Your task to perform on an android device: turn off picture-in-picture Image 0: 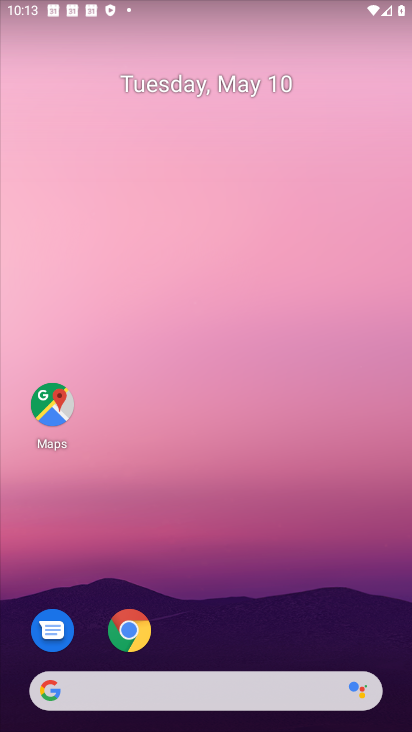
Step 0: click (123, 635)
Your task to perform on an android device: turn off picture-in-picture Image 1: 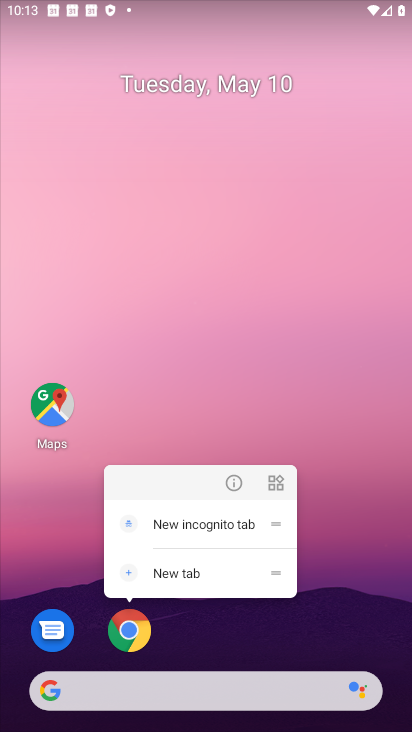
Step 1: click (231, 486)
Your task to perform on an android device: turn off picture-in-picture Image 2: 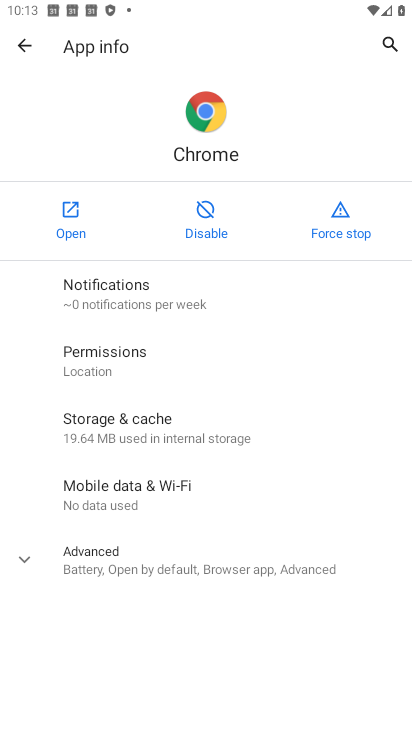
Step 2: click (277, 550)
Your task to perform on an android device: turn off picture-in-picture Image 3: 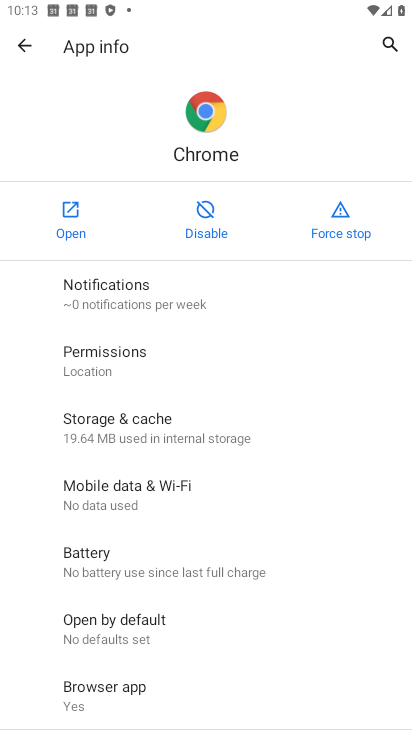
Step 3: drag from (253, 670) to (213, 97)
Your task to perform on an android device: turn off picture-in-picture Image 4: 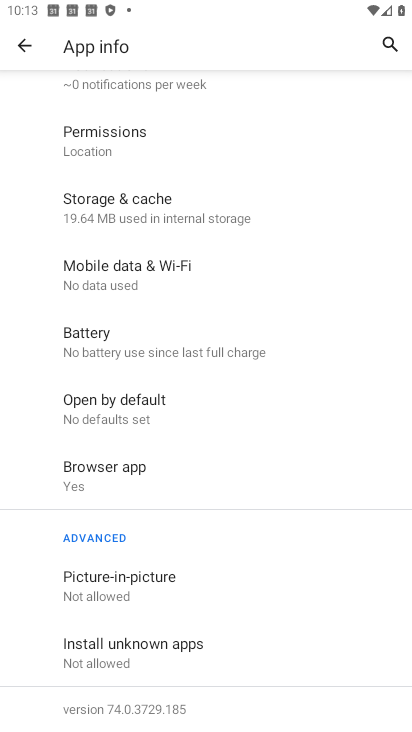
Step 4: click (104, 578)
Your task to perform on an android device: turn off picture-in-picture Image 5: 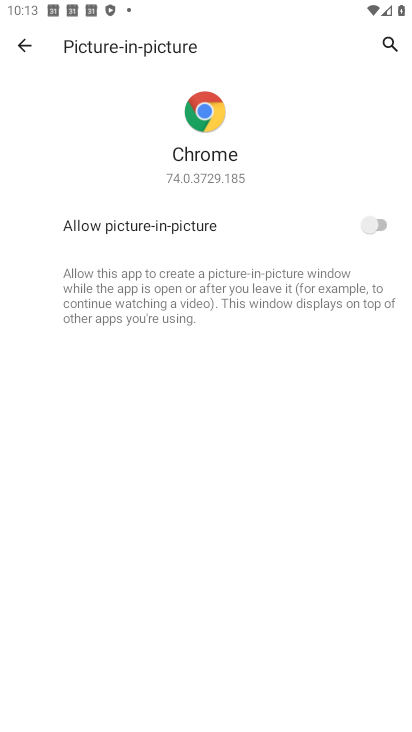
Step 5: task complete